Your task to perform on an android device: Go to Android settings Image 0: 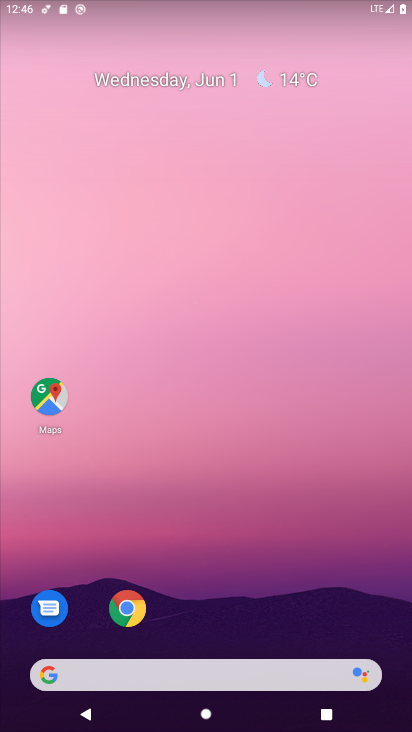
Step 0: drag from (229, 634) to (392, 6)
Your task to perform on an android device: Go to Android settings Image 1: 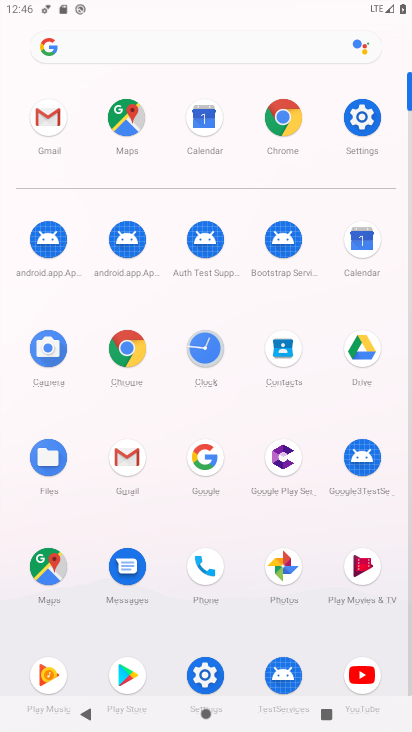
Step 1: click (355, 130)
Your task to perform on an android device: Go to Android settings Image 2: 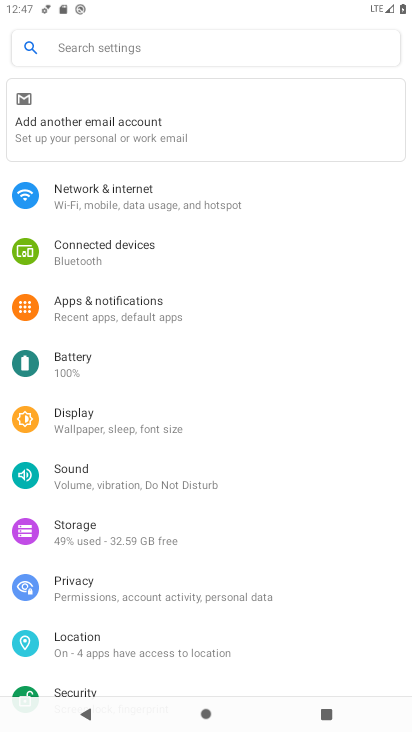
Step 2: drag from (125, 509) to (174, 62)
Your task to perform on an android device: Go to Android settings Image 3: 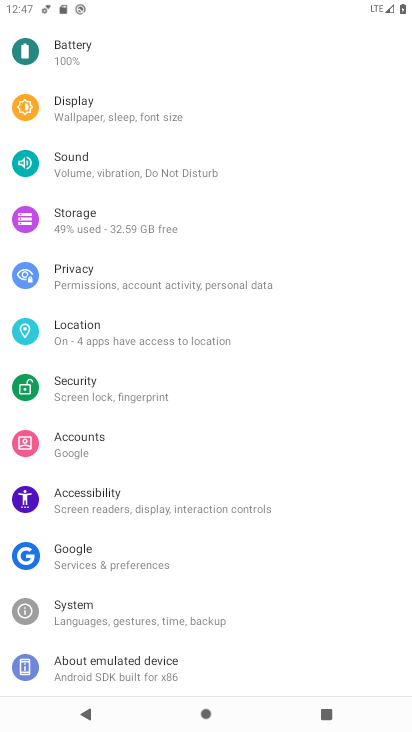
Step 3: drag from (221, 455) to (276, 121)
Your task to perform on an android device: Go to Android settings Image 4: 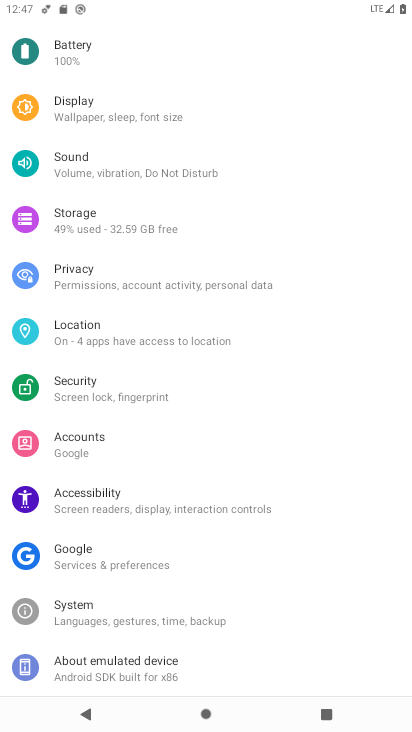
Step 4: click (136, 640)
Your task to perform on an android device: Go to Android settings Image 5: 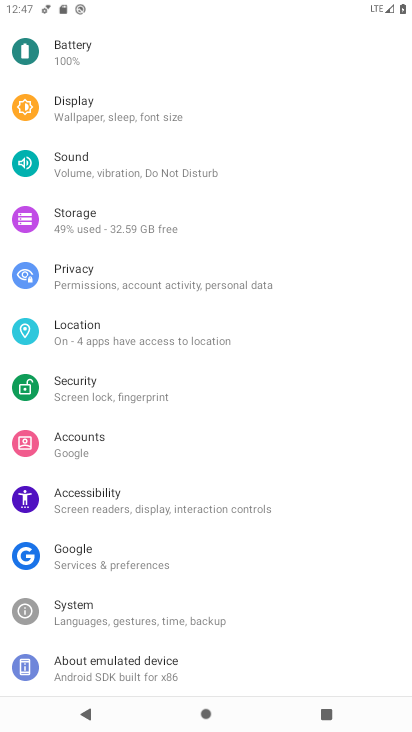
Step 5: click (126, 673)
Your task to perform on an android device: Go to Android settings Image 6: 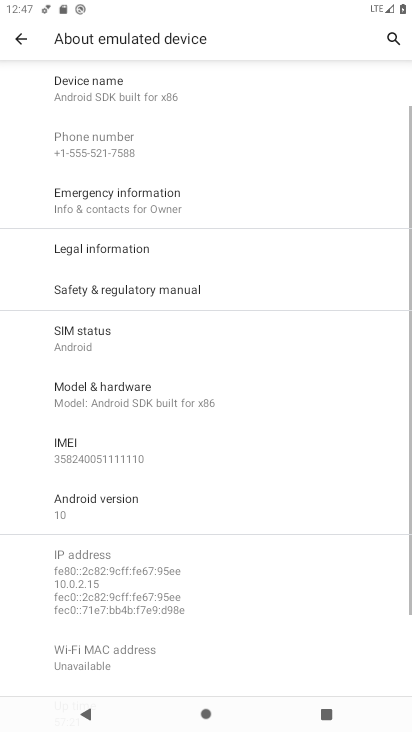
Step 6: drag from (145, 520) to (190, 177)
Your task to perform on an android device: Go to Android settings Image 7: 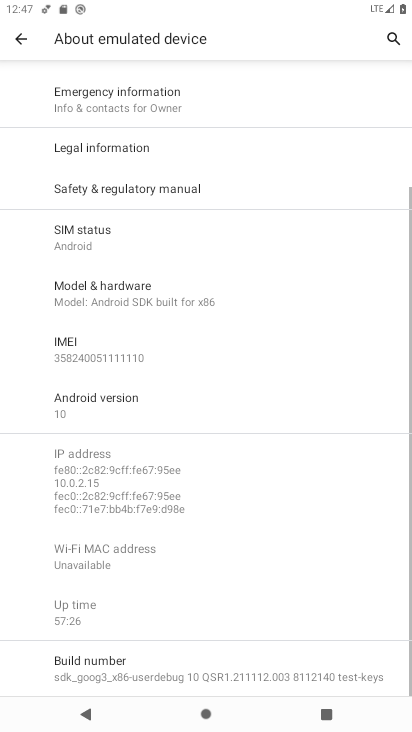
Step 7: click (105, 415)
Your task to perform on an android device: Go to Android settings Image 8: 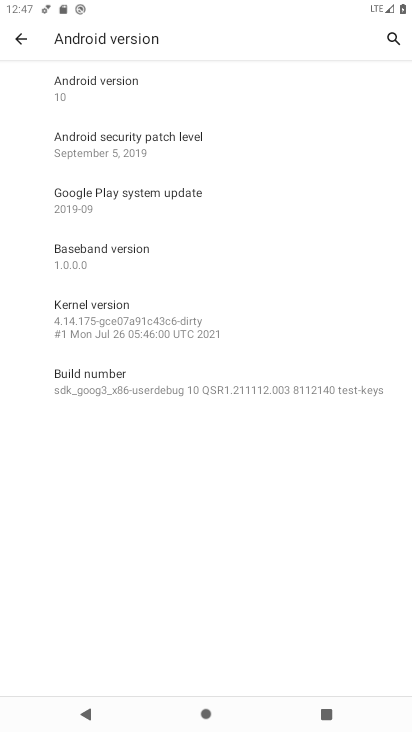
Step 8: task complete